Your task to perform on an android device: Play the latest video from the BBC Image 0: 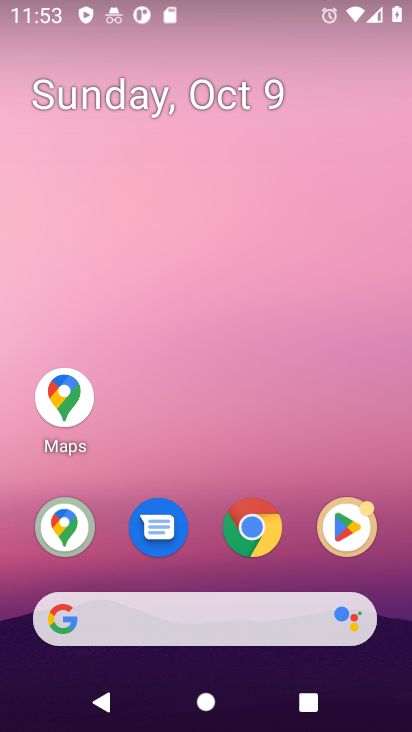
Step 0: click (244, 532)
Your task to perform on an android device: Play the latest video from the BBC Image 1: 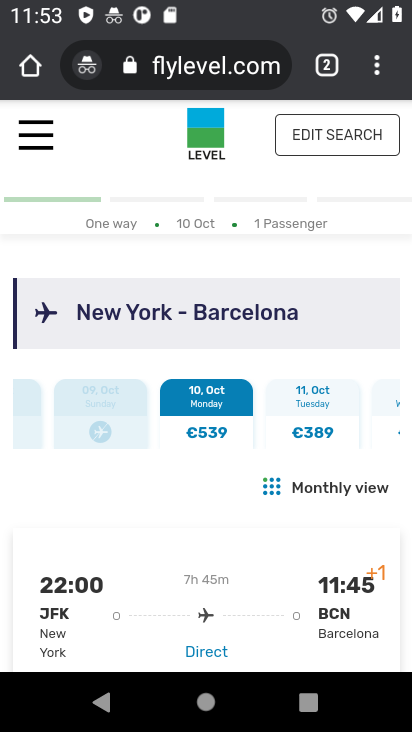
Step 1: click (158, 56)
Your task to perform on an android device: Play the latest video from the BBC Image 2: 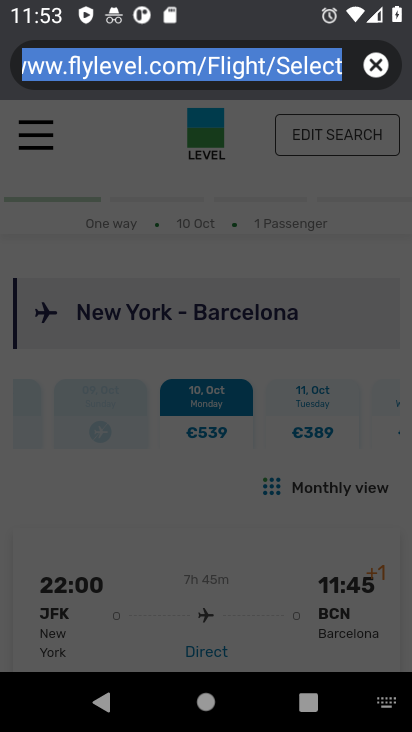
Step 2: type "the latest video from the BBC"
Your task to perform on an android device: Play the latest video from the BBC Image 3: 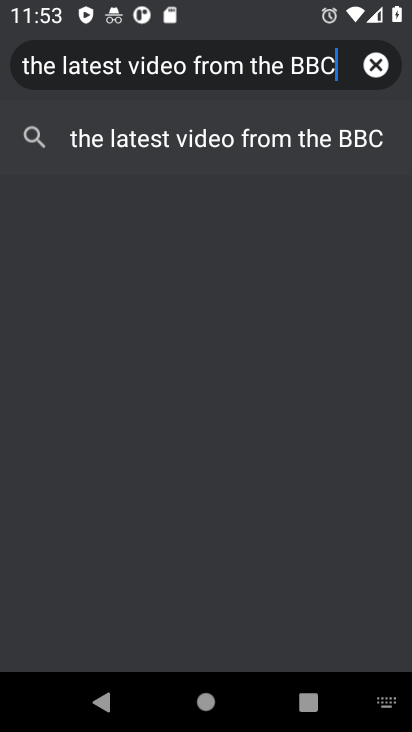
Step 3: click (204, 134)
Your task to perform on an android device: Play the latest video from the BBC Image 4: 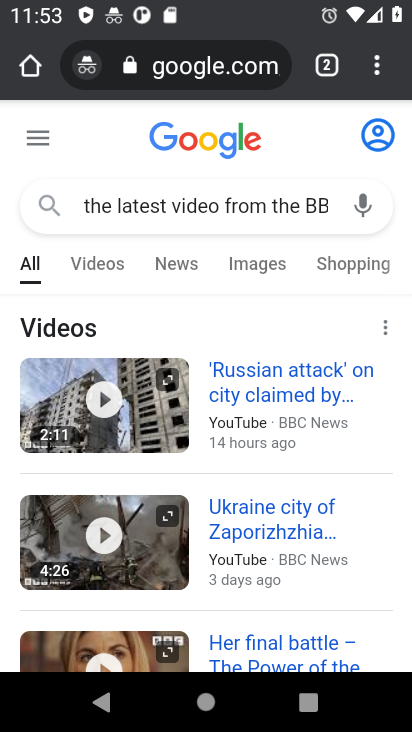
Step 4: click (92, 409)
Your task to perform on an android device: Play the latest video from the BBC Image 5: 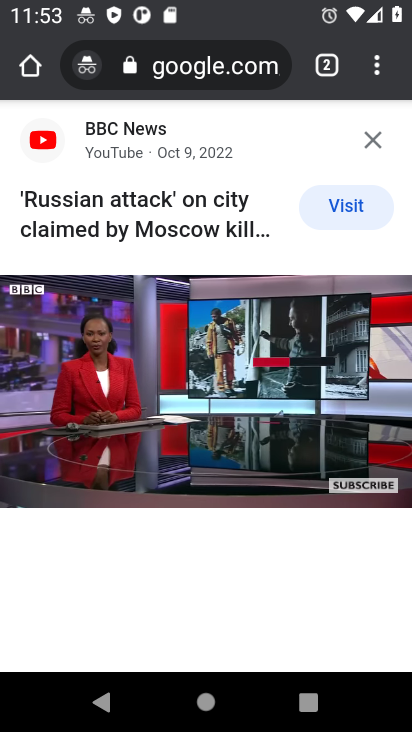
Step 5: click (279, 387)
Your task to perform on an android device: Play the latest video from the BBC Image 6: 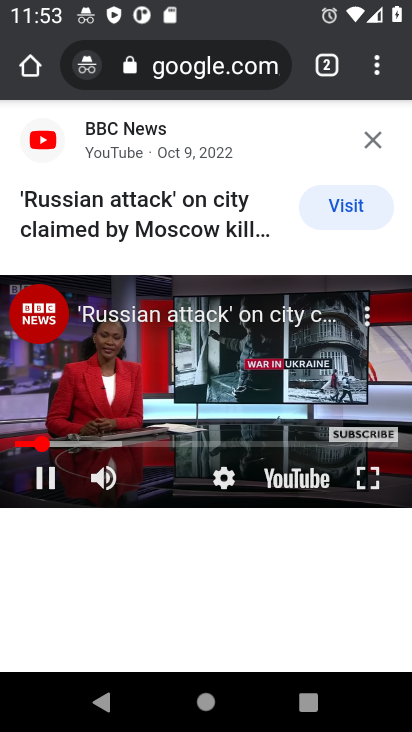
Step 6: click (201, 248)
Your task to perform on an android device: Play the latest video from the BBC Image 7: 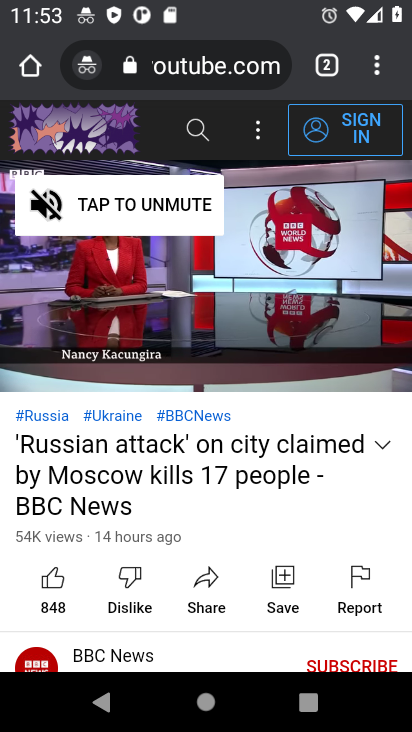
Step 7: task complete